Your task to perform on an android device: Go to Yahoo.com Image 0: 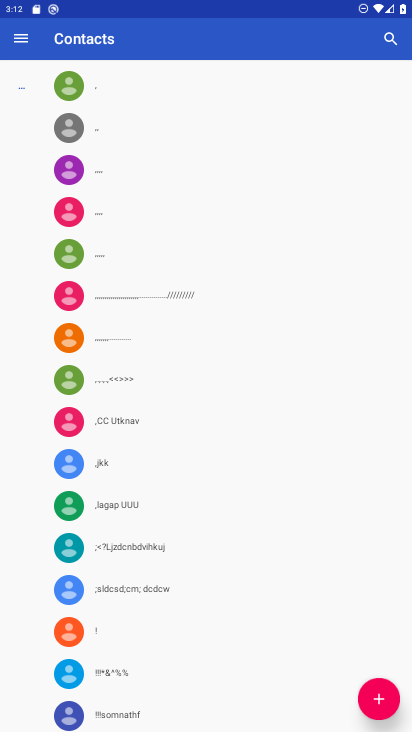
Step 0: press home button
Your task to perform on an android device: Go to Yahoo.com Image 1: 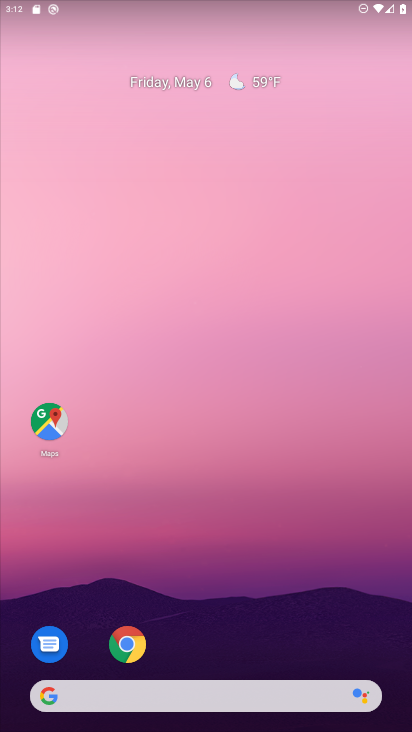
Step 1: click (133, 644)
Your task to perform on an android device: Go to Yahoo.com Image 2: 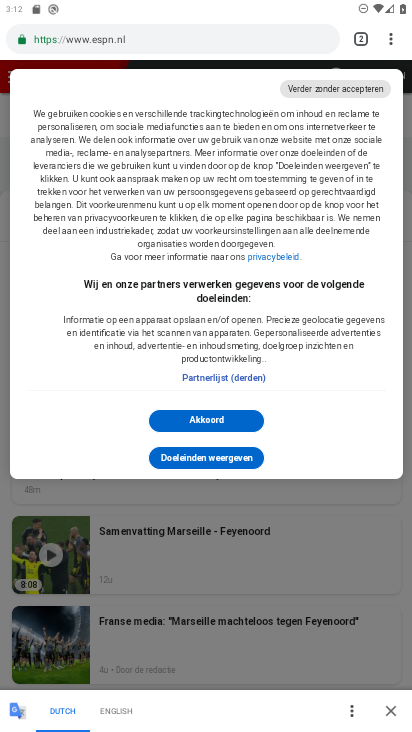
Step 2: click (393, 45)
Your task to perform on an android device: Go to Yahoo.com Image 3: 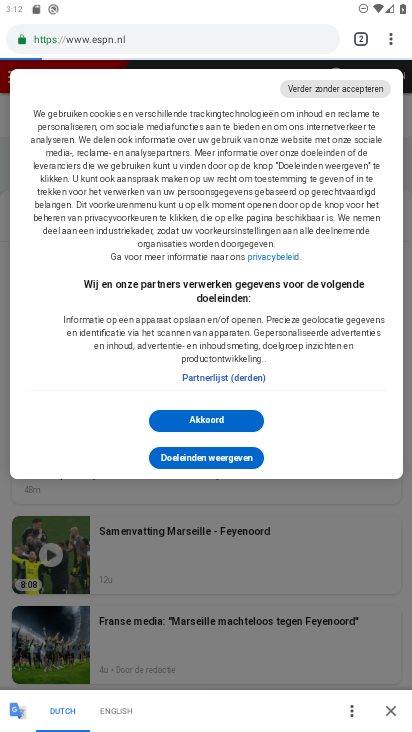
Step 3: click (391, 32)
Your task to perform on an android device: Go to Yahoo.com Image 4: 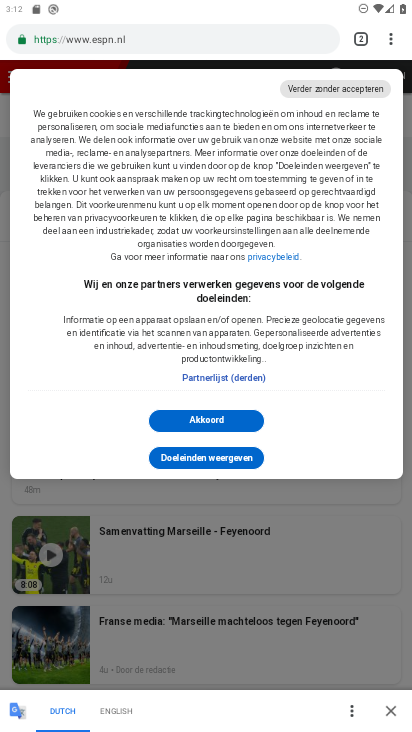
Step 4: drag from (391, 39) to (258, 80)
Your task to perform on an android device: Go to Yahoo.com Image 5: 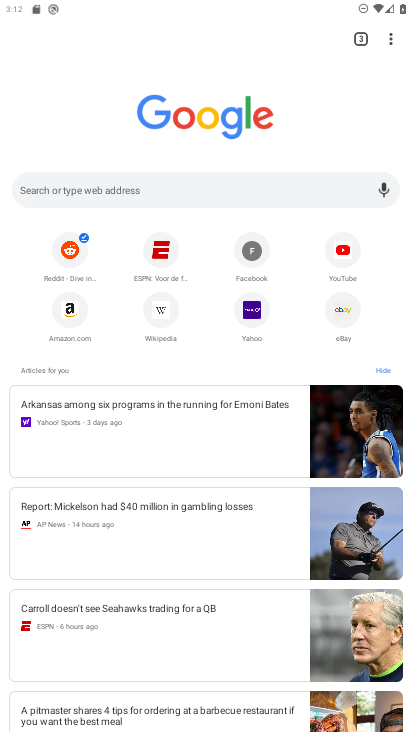
Step 5: click (254, 310)
Your task to perform on an android device: Go to Yahoo.com Image 6: 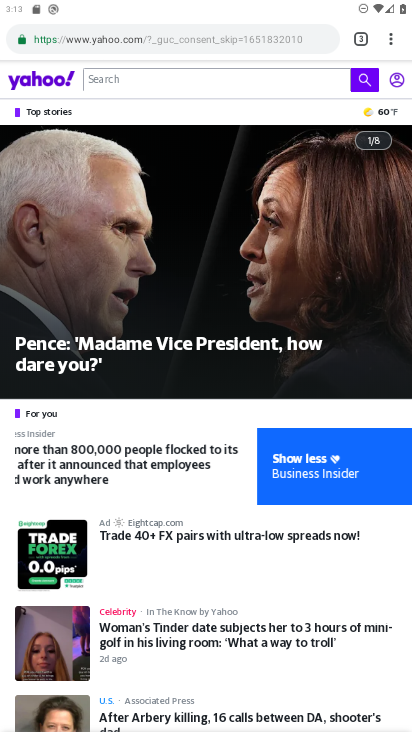
Step 6: task complete